Your task to perform on an android device: Search for pizza restaurants on Maps Image 0: 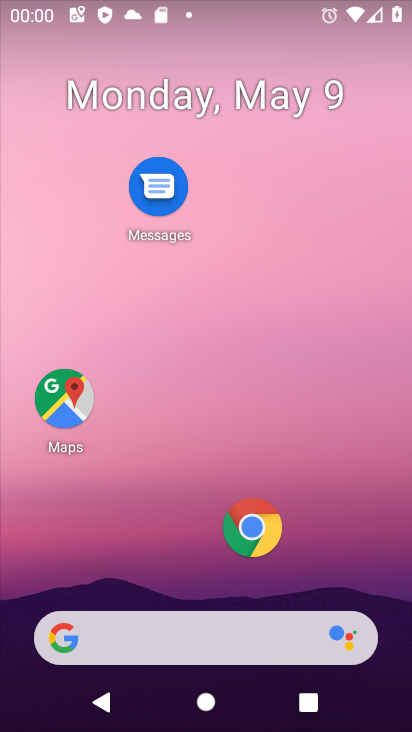
Step 0: click (170, 559)
Your task to perform on an android device: Search for pizza restaurants on Maps Image 1: 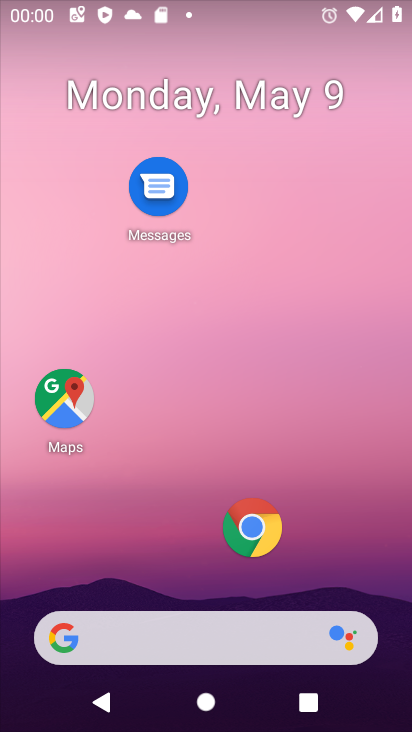
Step 1: click (63, 396)
Your task to perform on an android device: Search for pizza restaurants on Maps Image 2: 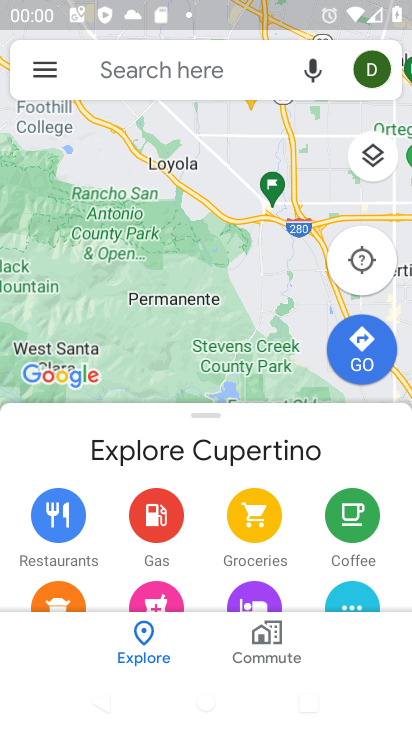
Step 2: click (171, 70)
Your task to perform on an android device: Search for pizza restaurants on Maps Image 3: 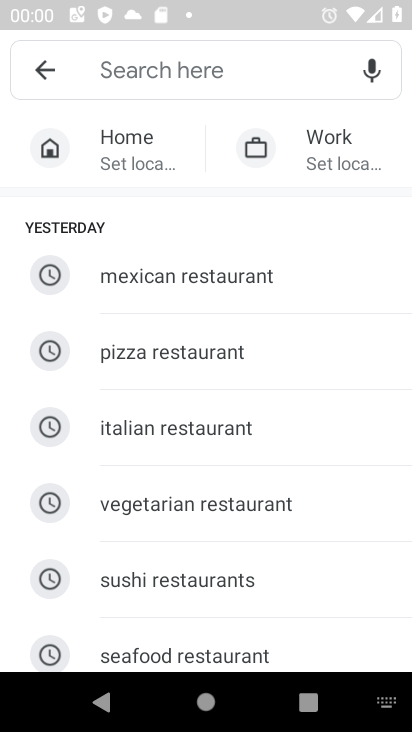
Step 3: click (198, 367)
Your task to perform on an android device: Search for pizza restaurants on Maps Image 4: 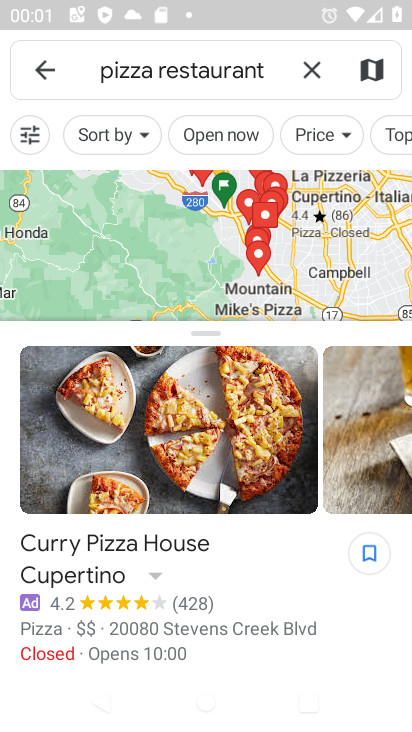
Step 4: task complete